Your task to perform on an android device: check battery use Image 0: 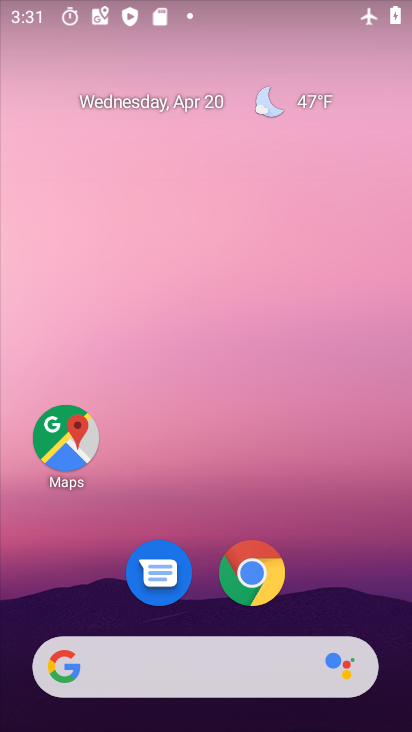
Step 0: drag from (204, 721) to (183, 165)
Your task to perform on an android device: check battery use Image 1: 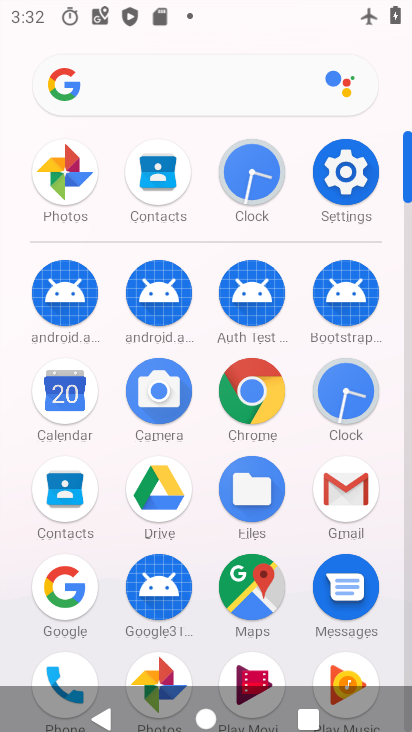
Step 1: click (345, 174)
Your task to perform on an android device: check battery use Image 2: 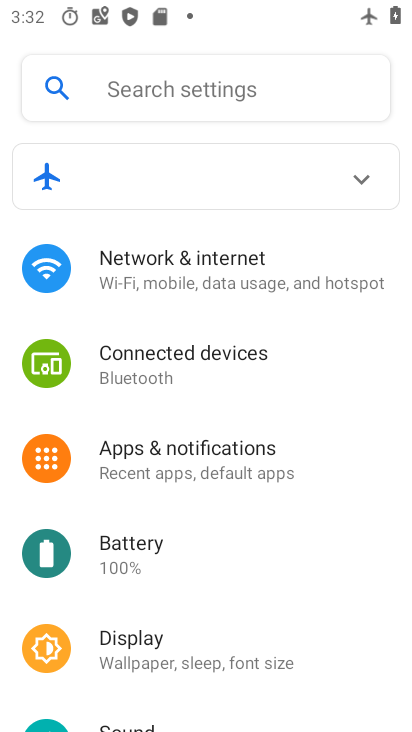
Step 2: click (121, 553)
Your task to perform on an android device: check battery use Image 3: 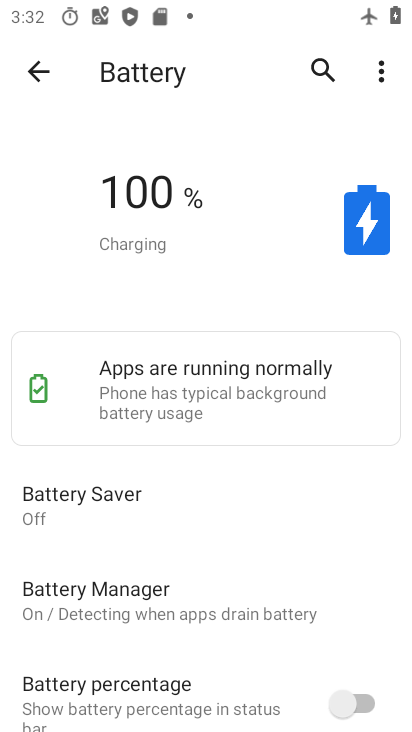
Step 3: drag from (148, 650) to (159, 209)
Your task to perform on an android device: check battery use Image 4: 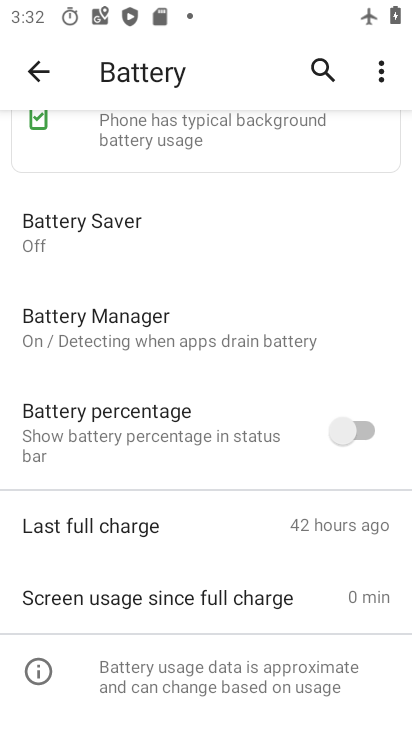
Step 4: click (381, 76)
Your task to perform on an android device: check battery use Image 5: 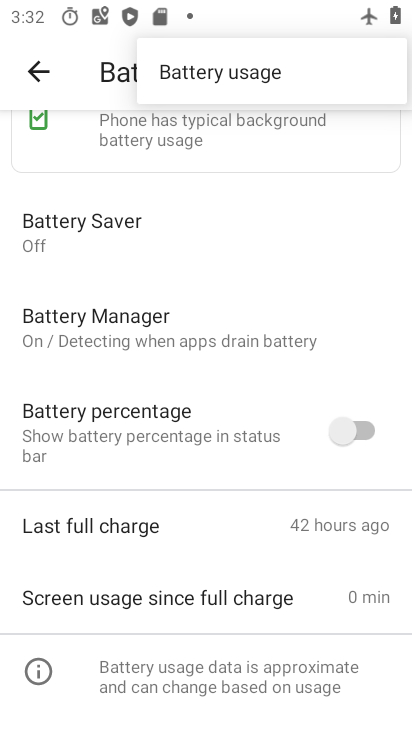
Step 5: click (210, 75)
Your task to perform on an android device: check battery use Image 6: 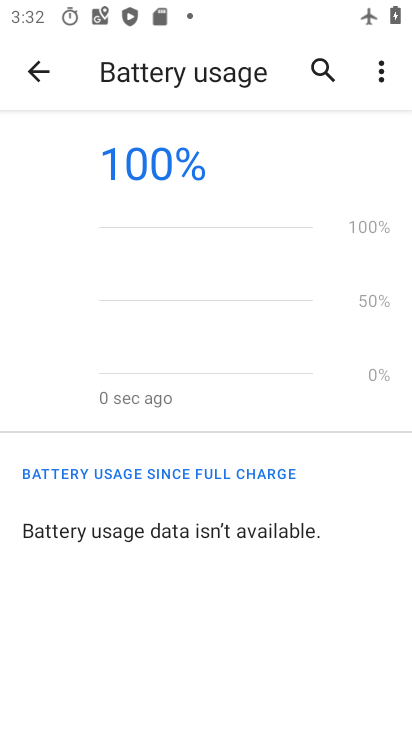
Step 6: task complete